Your task to perform on an android device: Open the stopwatch Image 0: 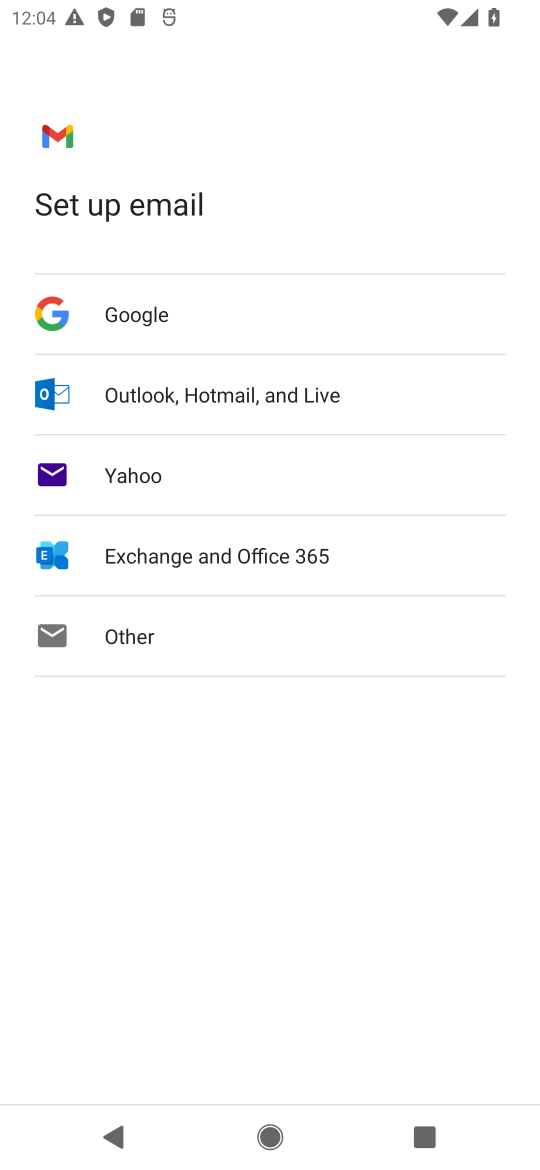
Step 0: press back button
Your task to perform on an android device: Open the stopwatch Image 1: 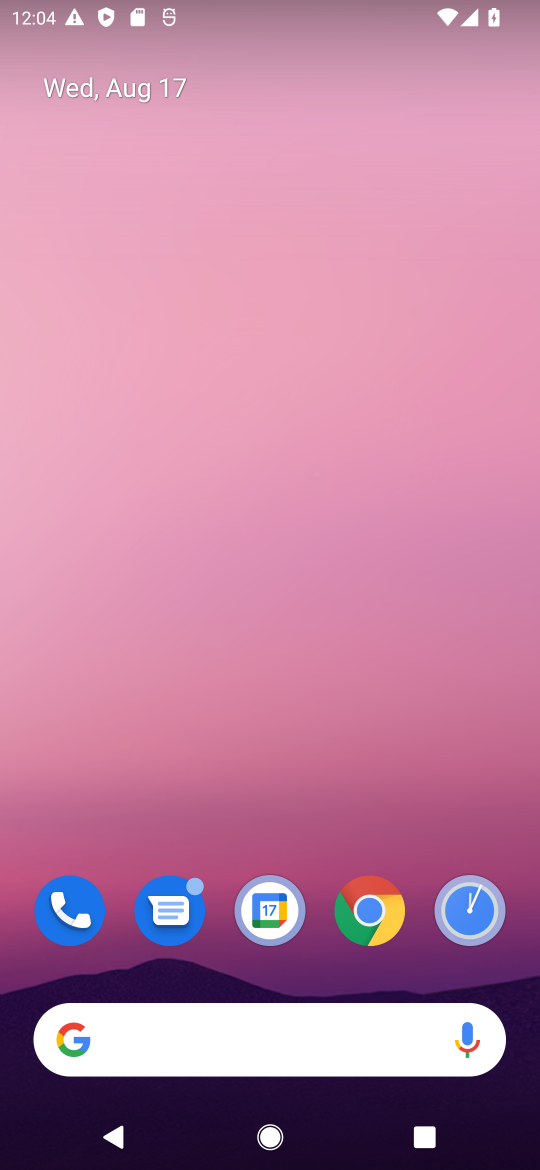
Step 1: click (473, 902)
Your task to perform on an android device: Open the stopwatch Image 2: 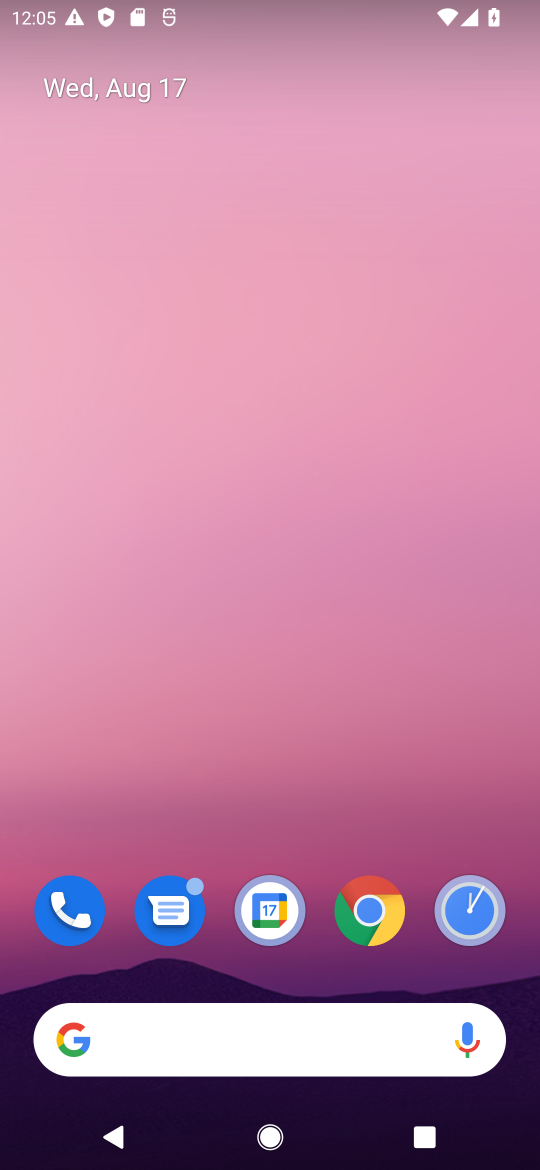
Step 2: click (470, 904)
Your task to perform on an android device: Open the stopwatch Image 3: 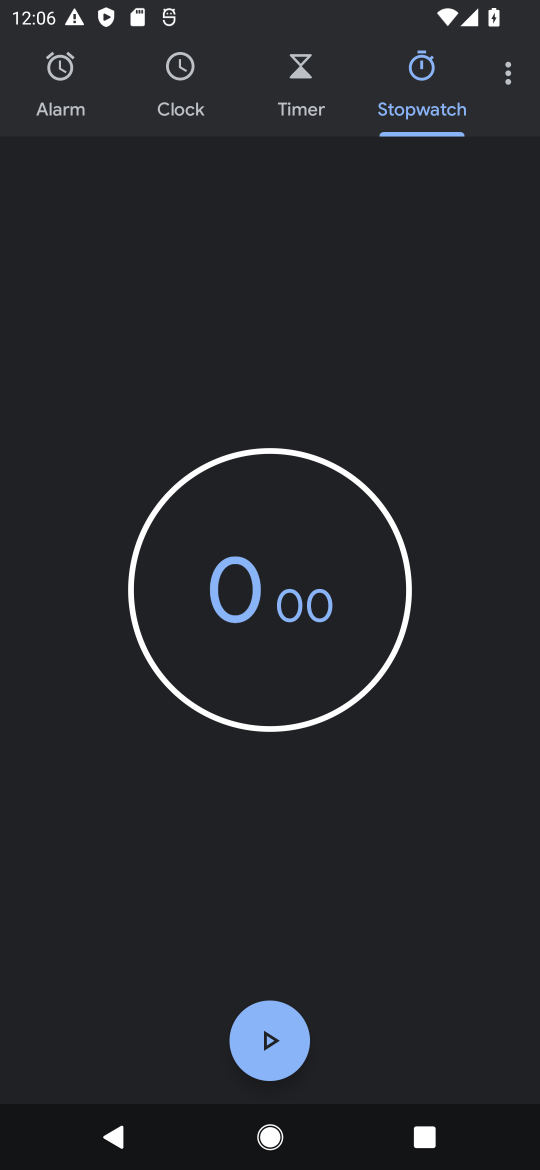
Step 3: task complete